Your task to perform on an android device: Open Google Chrome Image 0: 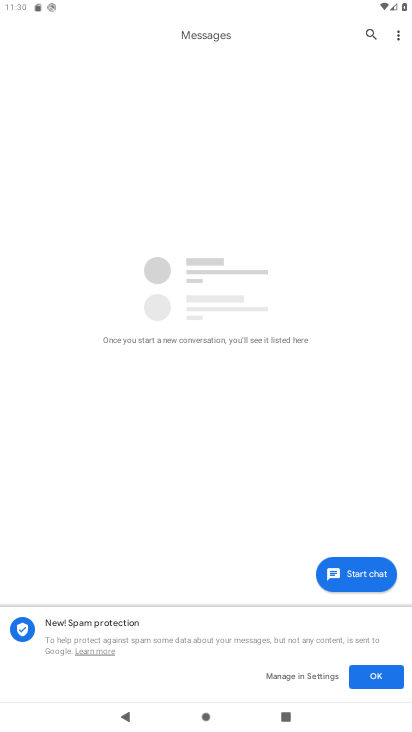
Step 0: press home button
Your task to perform on an android device: Open Google Chrome Image 1: 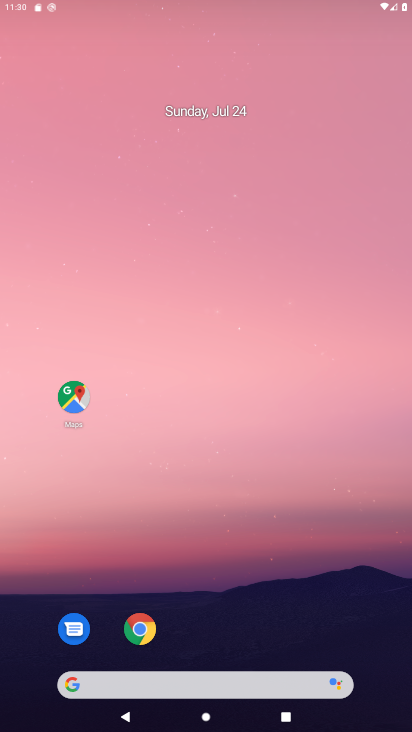
Step 1: click (151, 627)
Your task to perform on an android device: Open Google Chrome Image 2: 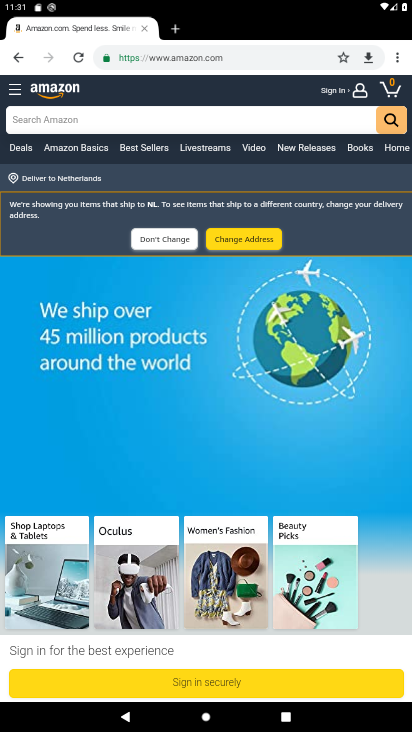
Step 2: task complete